Your task to perform on an android device: Show me productivity apps on the Play Store Image 0: 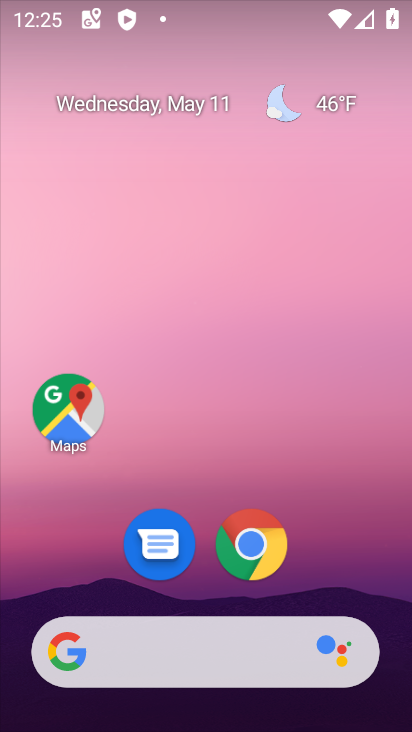
Step 0: drag from (397, 650) to (323, 83)
Your task to perform on an android device: Show me productivity apps on the Play Store Image 1: 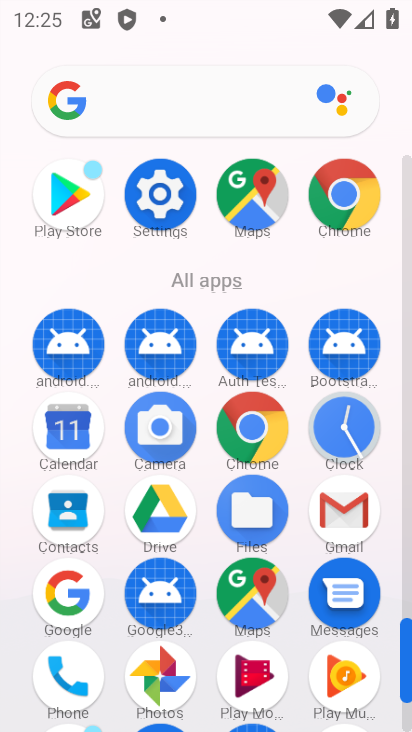
Step 1: click (406, 710)
Your task to perform on an android device: Show me productivity apps on the Play Store Image 2: 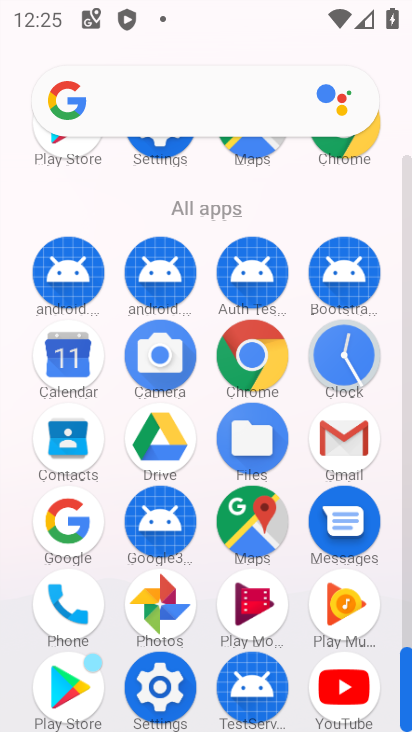
Step 2: click (81, 684)
Your task to perform on an android device: Show me productivity apps on the Play Store Image 3: 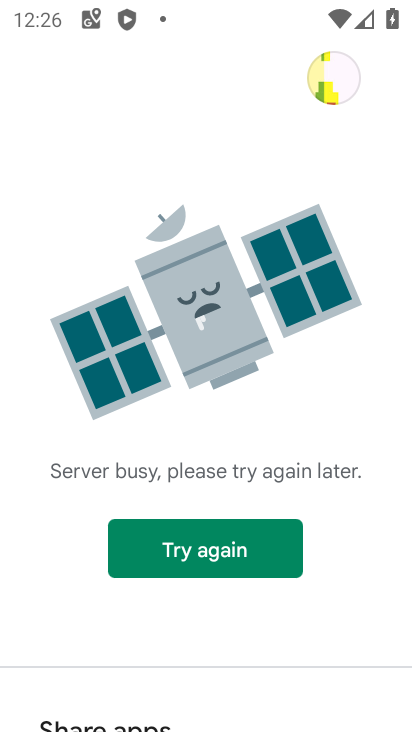
Step 3: click (185, 561)
Your task to perform on an android device: Show me productivity apps on the Play Store Image 4: 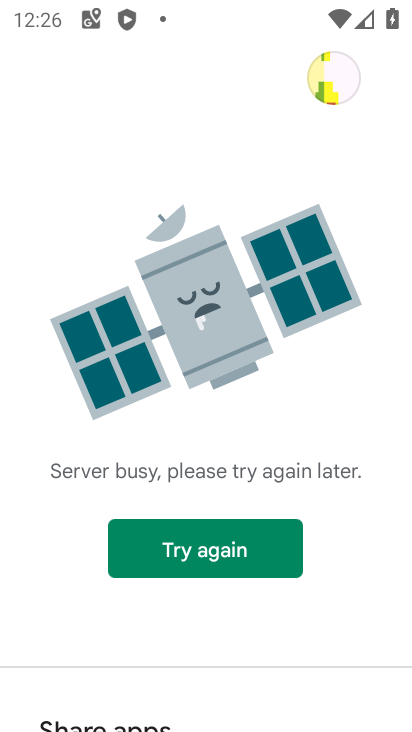
Step 4: click (185, 561)
Your task to perform on an android device: Show me productivity apps on the Play Store Image 5: 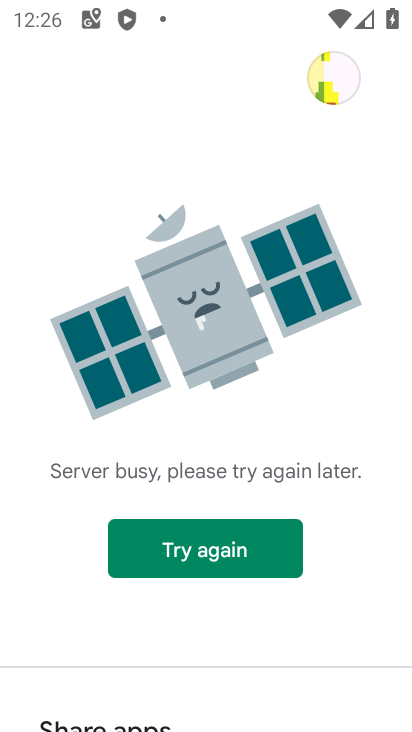
Step 5: click (200, 556)
Your task to perform on an android device: Show me productivity apps on the Play Store Image 6: 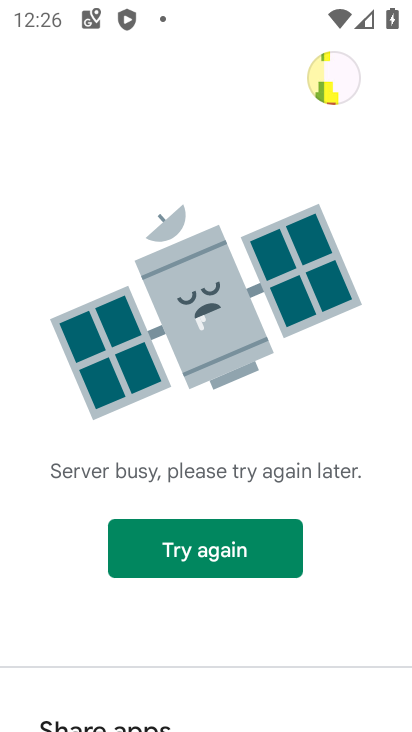
Step 6: click (200, 556)
Your task to perform on an android device: Show me productivity apps on the Play Store Image 7: 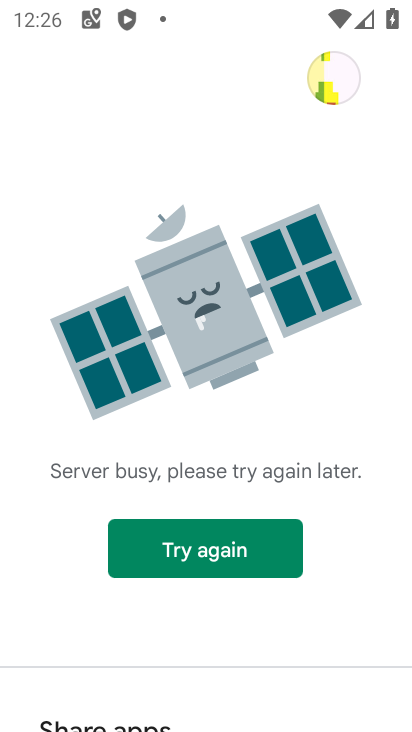
Step 7: task complete